Your task to perform on an android device: make emails show in primary in the gmail app Image 0: 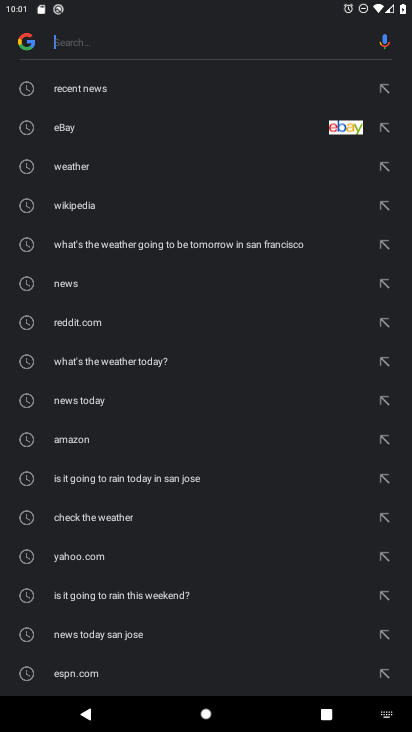
Step 0: press home button
Your task to perform on an android device: make emails show in primary in the gmail app Image 1: 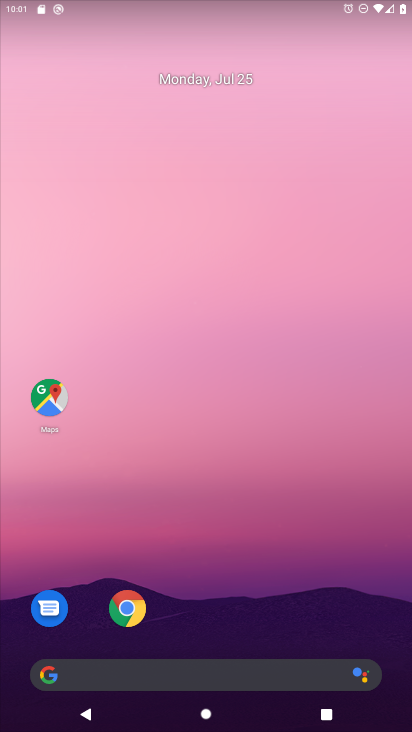
Step 1: drag from (127, 610) to (161, 115)
Your task to perform on an android device: make emails show in primary in the gmail app Image 2: 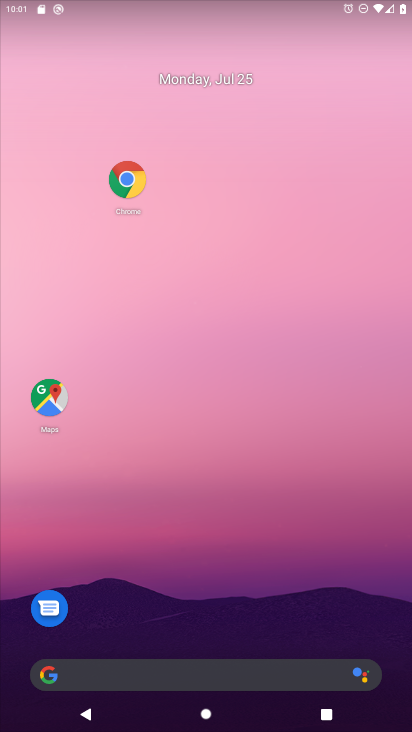
Step 2: drag from (244, 663) to (274, 185)
Your task to perform on an android device: make emails show in primary in the gmail app Image 3: 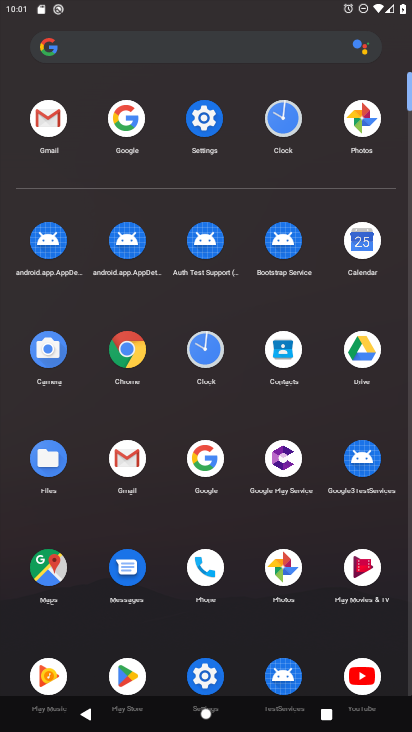
Step 3: click (49, 121)
Your task to perform on an android device: make emails show in primary in the gmail app Image 4: 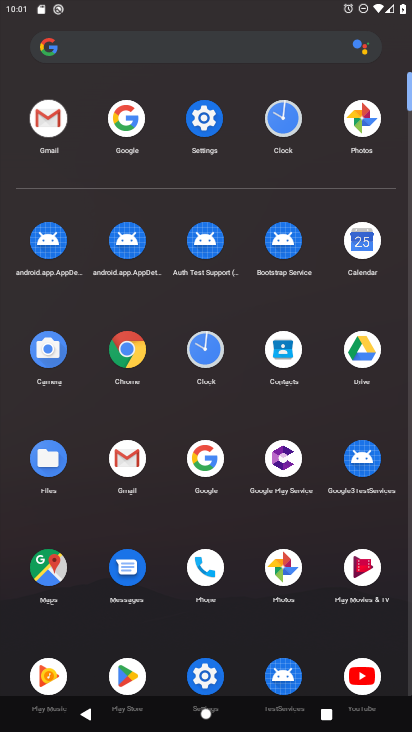
Step 4: click (49, 121)
Your task to perform on an android device: make emails show in primary in the gmail app Image 5: 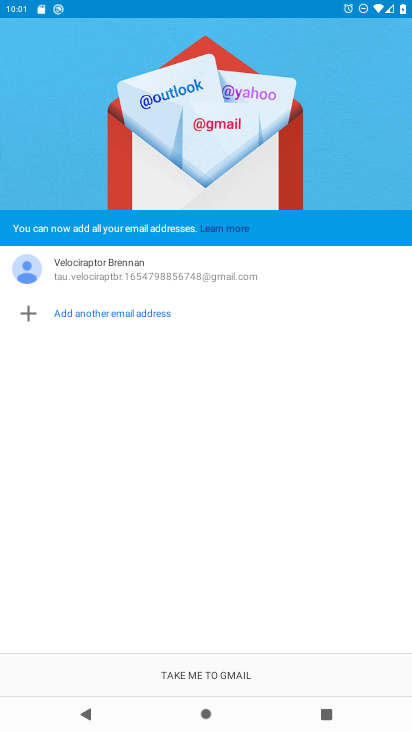
Step 5: click (251, 679)
Your task to perform on an android device: make emails show in primary in the gmail app Image 6: 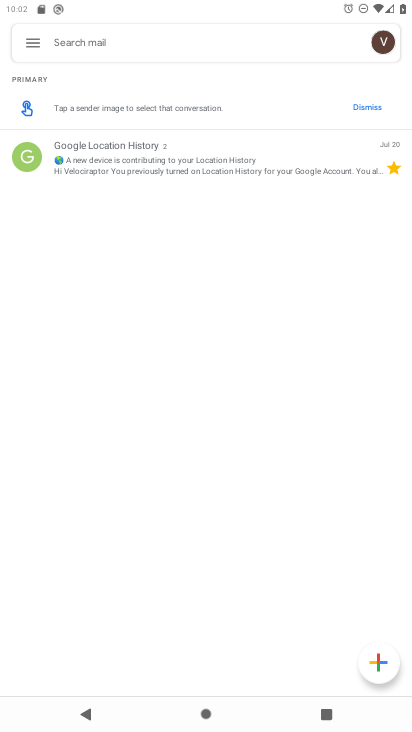
Step 6: click (29, 40)
Your task to perform on an android device: make emails show in primary in the gmail app Image 7: 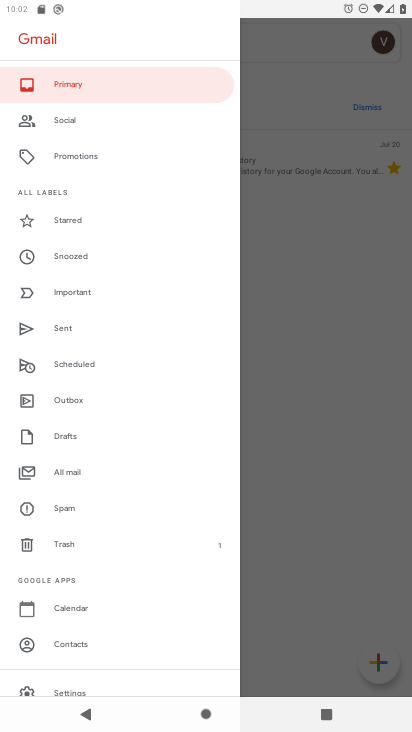
Step 7: click (45, 683)
Your task to perform on an android device: make emails show in primary in the gmail app Image 8: 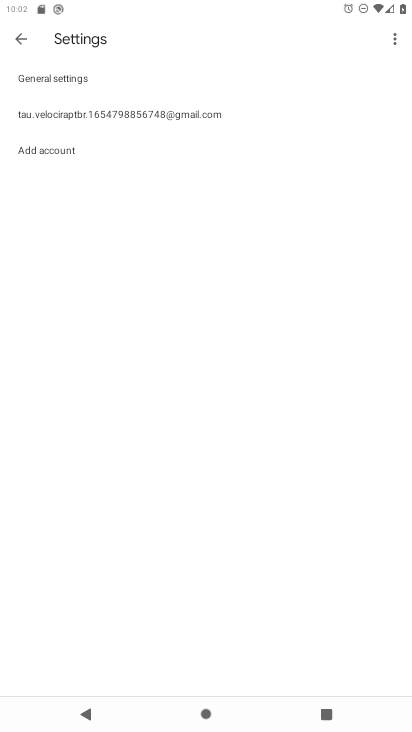
Step 8: click (226, 110)
Your task to perform on an android device: make emails show in primary in the gmail app Image 9: 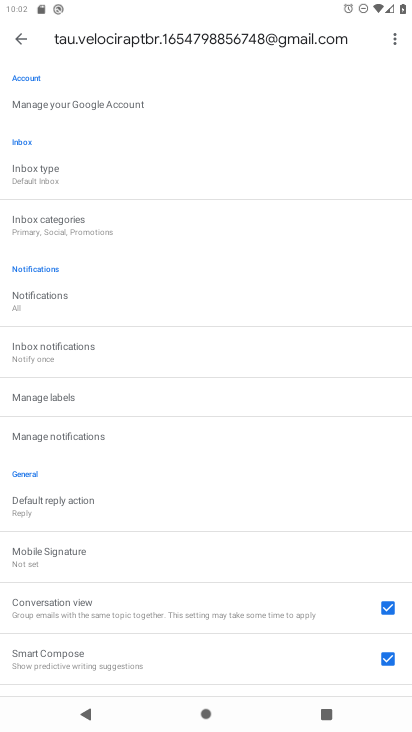
Step 9: click (79, 175)
Your task to perform on an android device: make emails show in primary in the gmail app Image 10: 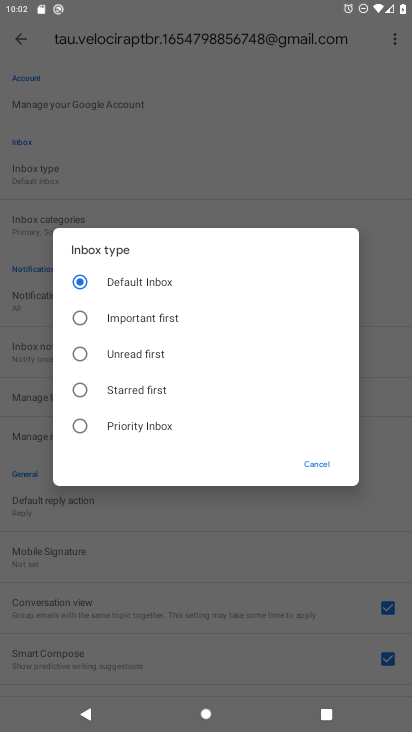
Step 10: click (244, 201)
Your task to perform on an android device: make emails show in primary in the gmail app Image 11: 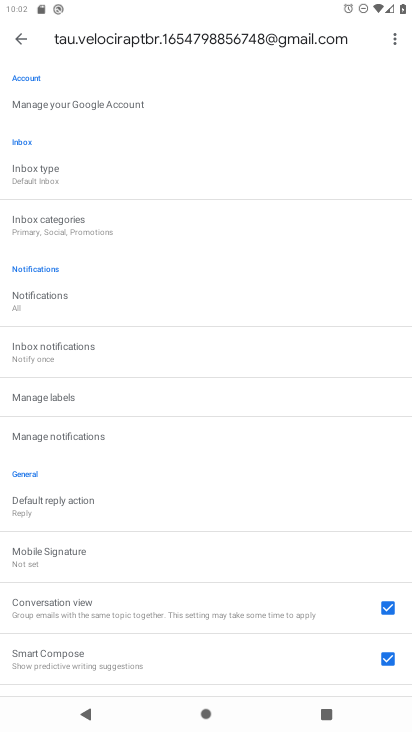
Step 11: click (123, 230)
Your task to perform on an android device: make emails show in primary in the gmail app Image 12: 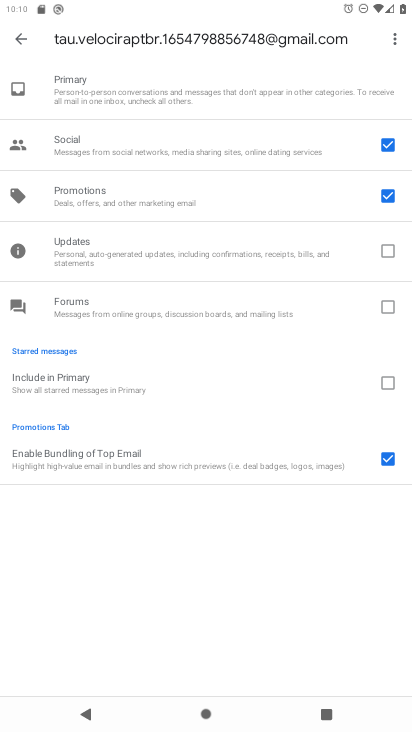
Step 12: click (390, 199)
Your task to perform on an android device: make emails show in primary in the gmail app Image 13: 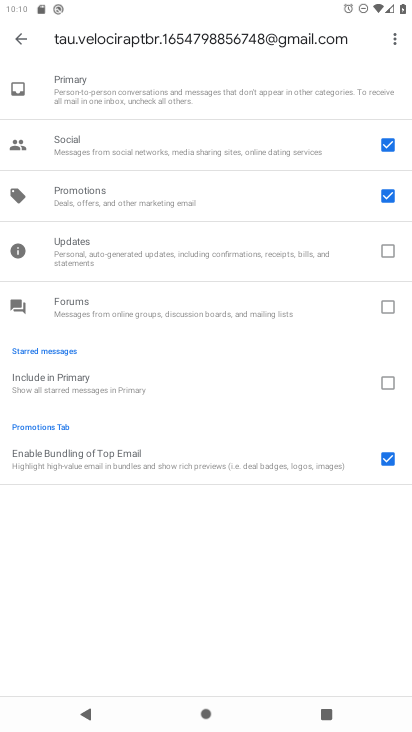
Step 13: click (387, 145)
Your task to perform on an android device: make emails show in primary in the gmail app Image 14: 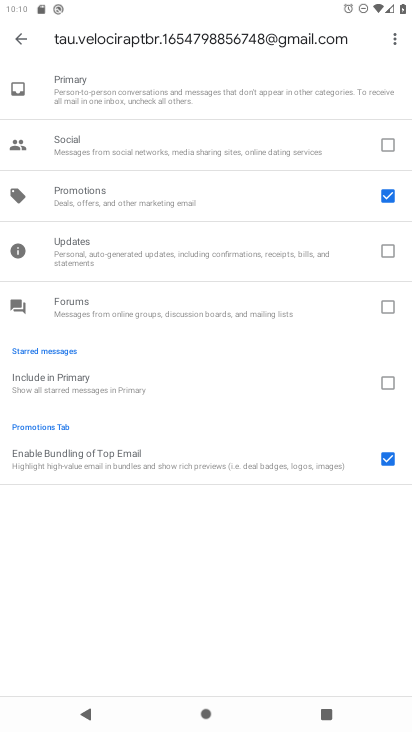
Step 14: click (391, 197)
Your task to perform on an android device: make emails show in primary in the gmail app Image 15: 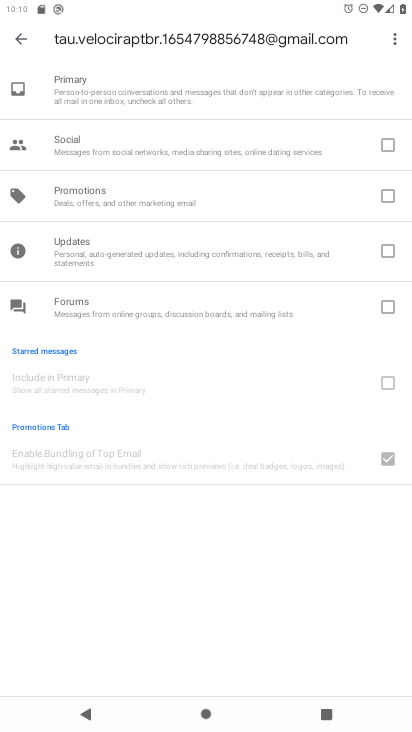
Step 15: task complete